Your task to perform on an android device: Open the calendar Image 0: 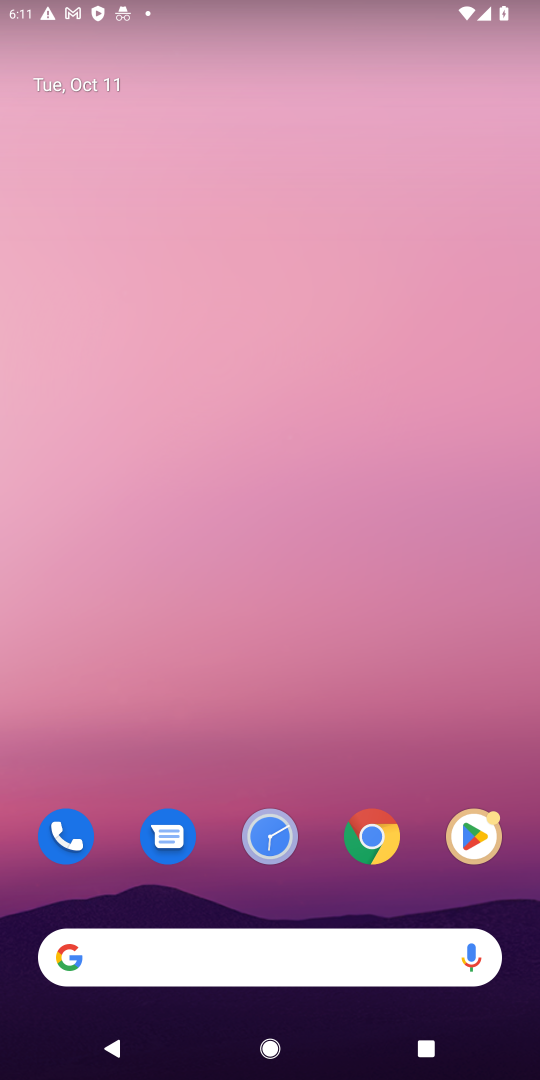
Step 0: drag from (412, 885) to (408, 116)
Your task to perform on an android device: Open the calendar Image 1: 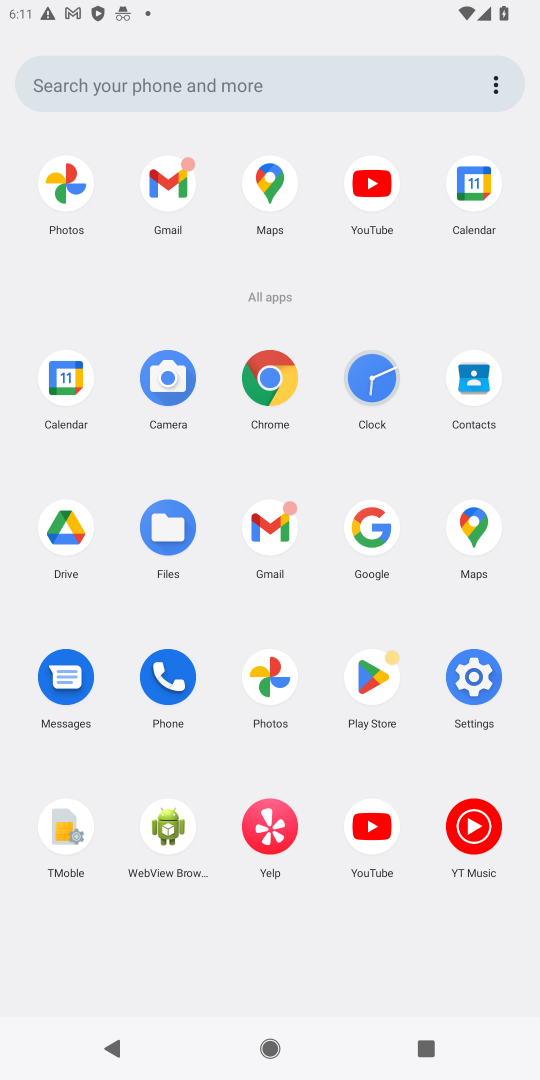
Step 1: click (64, 374)
Your task to perform on an android device: Open the calendar Image 2: 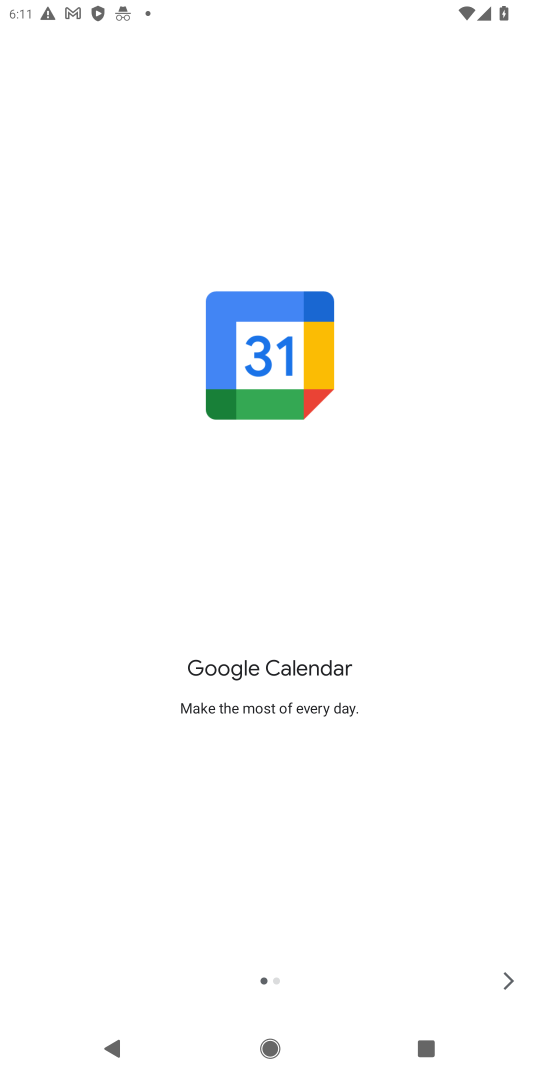
Step 2: click (505, 979)
Your task to perform on an android device: Open the calendar Image 3: 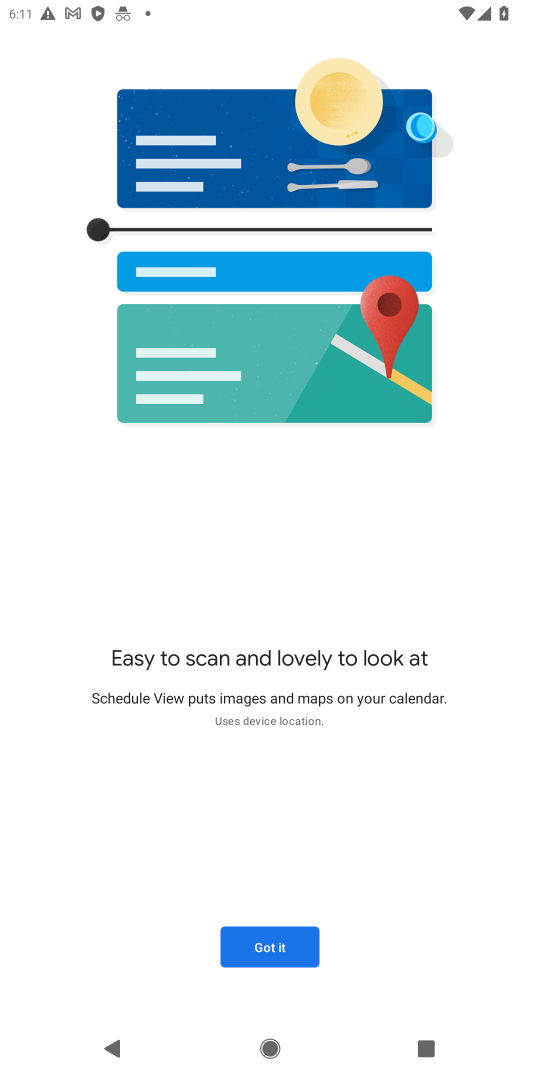
Step 3: click (258, 950)
Your task to perform on an android device: Open the calendar Image 4: 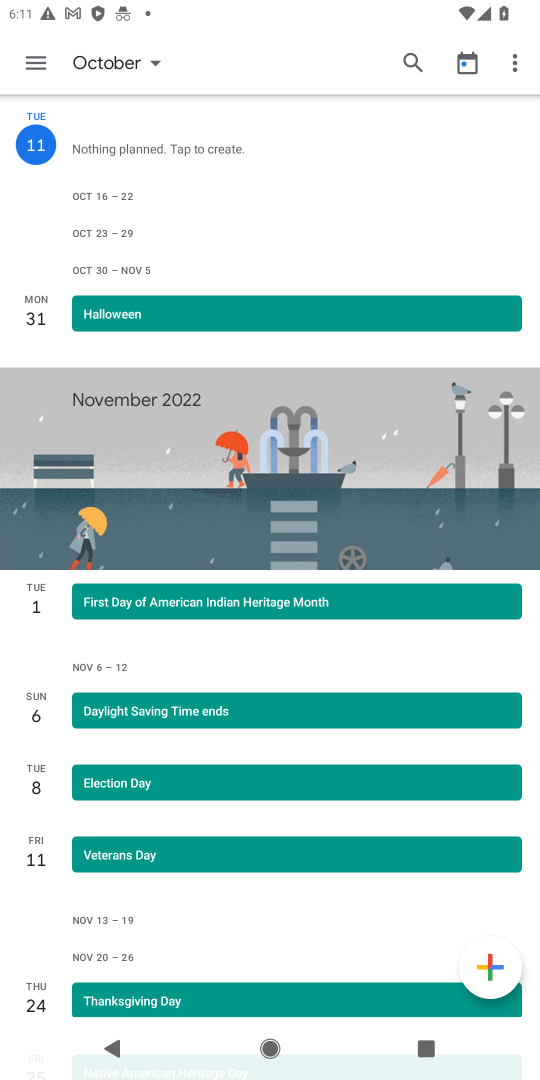
Step 4: task complete